Your task to perform on an android device: refresh tabs in the chrome app Image 0: 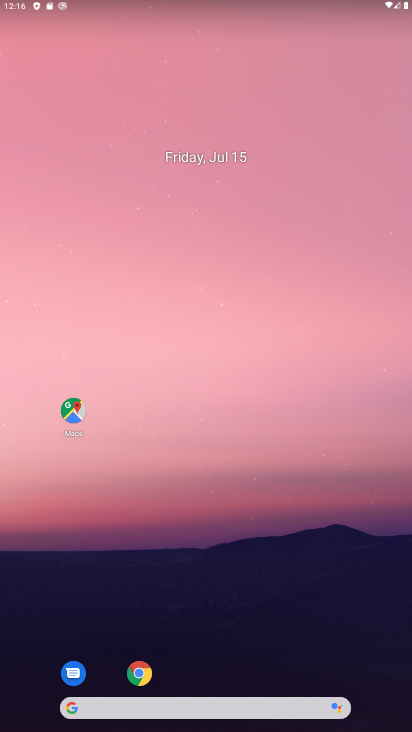
Step 0: drag from (381, 715) to (310, 180)
Your task to perform on an android device: refresh tabs in the chrome app Image 1: 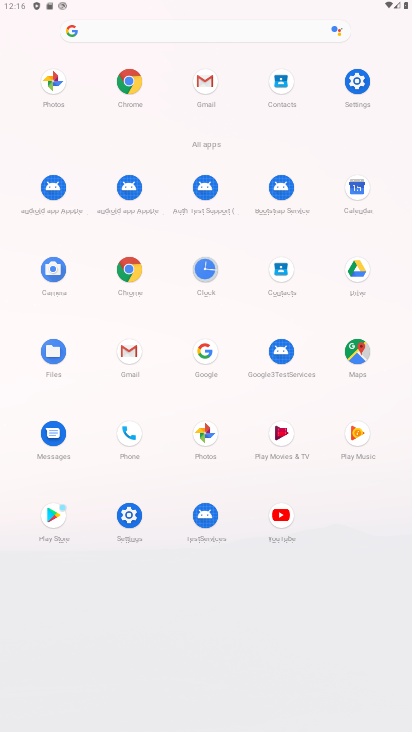
Step 1: click (129, 90)
Your task to perform on an android device: refresh tabs in the chrome app Image 2: 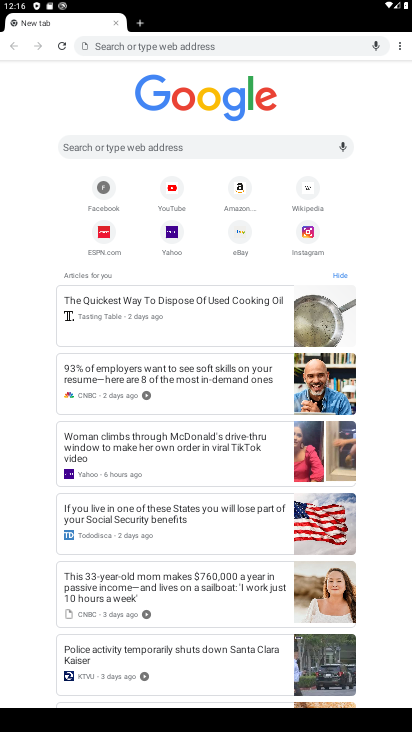
Step 2: click (399, 41)
Your task to perform on an android device: refresh tabs in the chrome app Image 3: 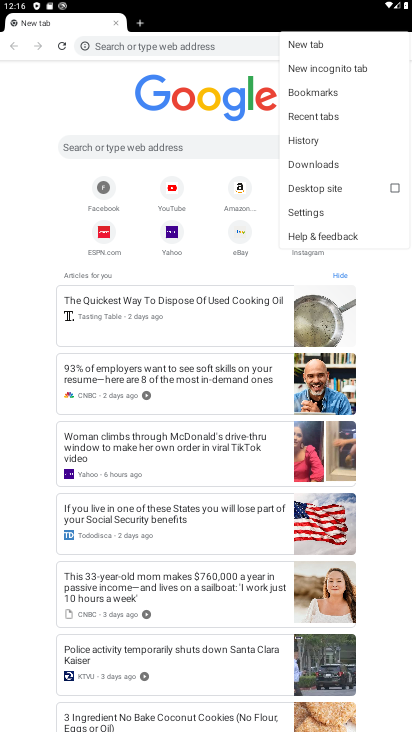
Step 3: click (244, 83)
Your task to perform on an android device: refresh tabs in the chrome app Image 4: 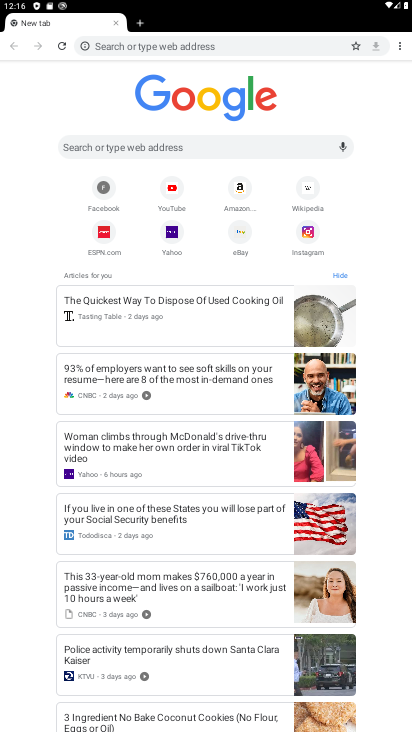
Step 4: click (396, 46)
Your task to perform on an android device: refresh tabs in the chrome app Image 5: 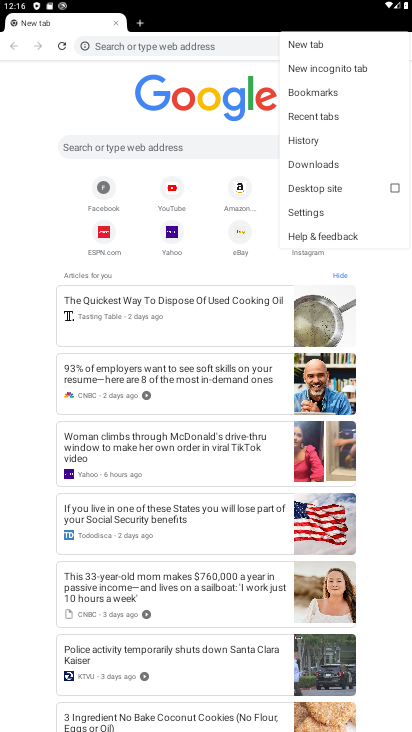
Step 5: click (396, 46)
Your task to perform on an android device: refresh tabs in the chrome app Image 6: 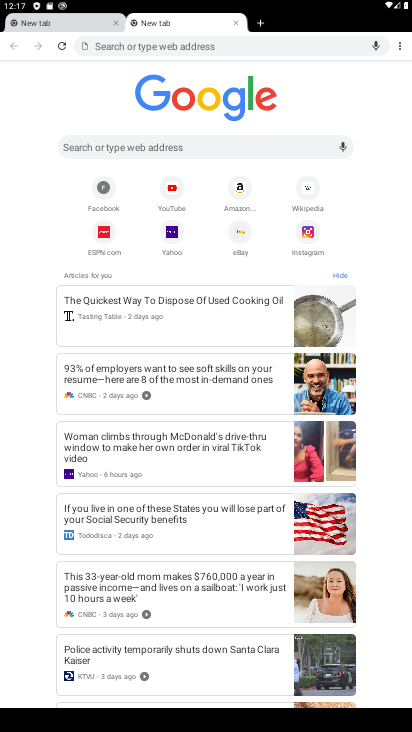
Step 6: task complete